Your task to perform on an android device: find which apps use the phone's location Image 0: 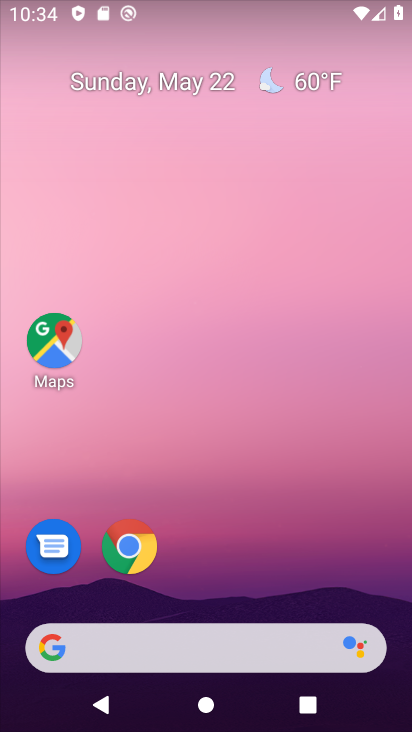
Step 0: drag from (229, 726) to (231, 82)
Your task to perform on an android device: find which apps use the phone's location Image 1: 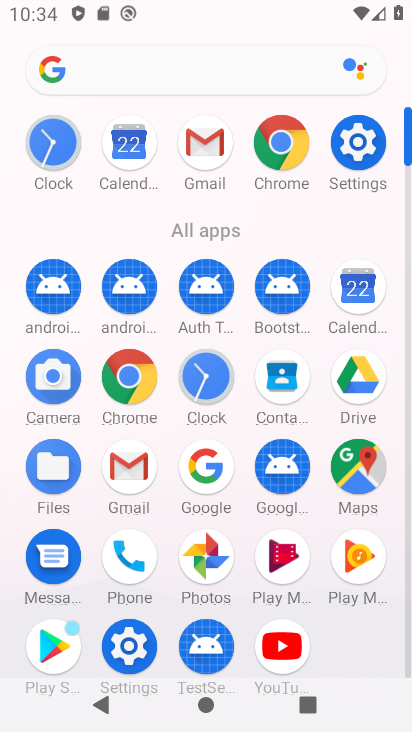
Step 1: click (359, 136)
Your task to perform on an android device: find which apps use the phone's location Image 2: 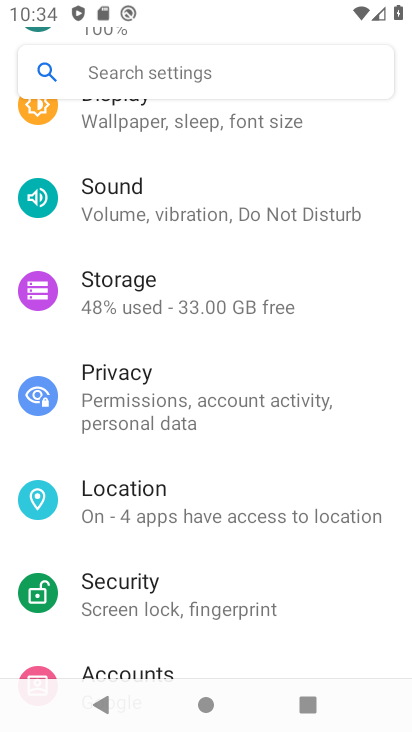
Step 2: click (114, 494)
Your task to perform on an android device: find which apps use the phone's location Image 3: 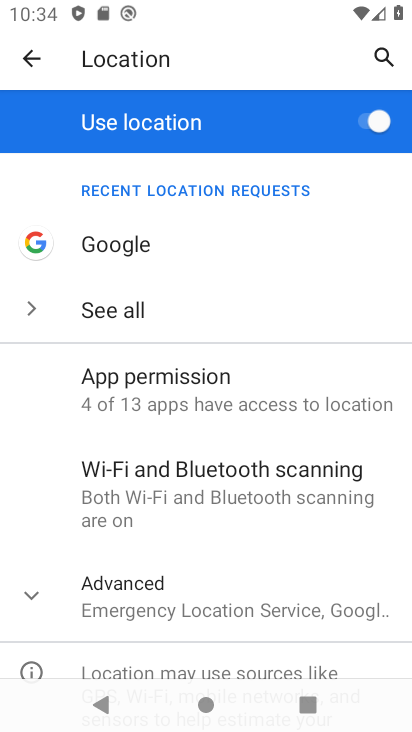
Step 3: click (138, 395)
Your task to perform on an android device: find which apps use the phone's location Image 4: 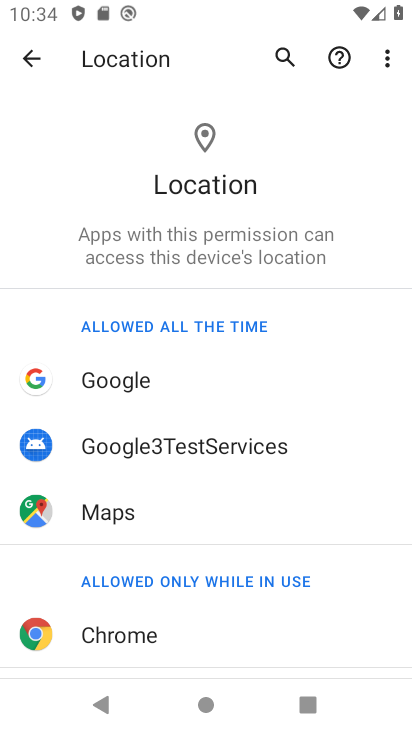
Step 4: task complete